Your task to perform on an android device: turn on priority inbox in the gmail app Image 0: 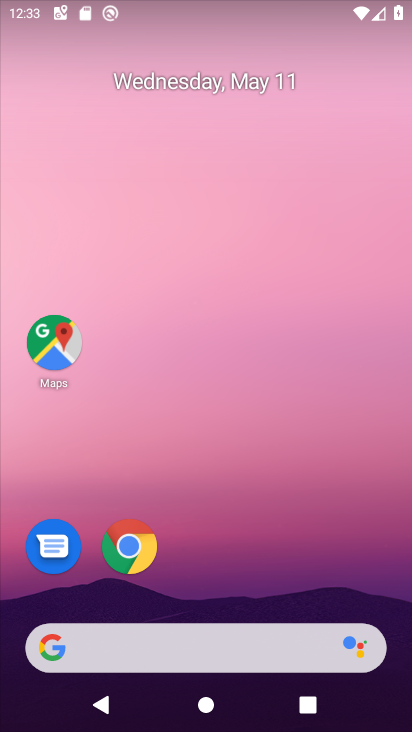
Step 0: drag from (238, 584) to (244, 237)
Your task to perform on an android device: turn on priority inbox in the gmail app Image 1: 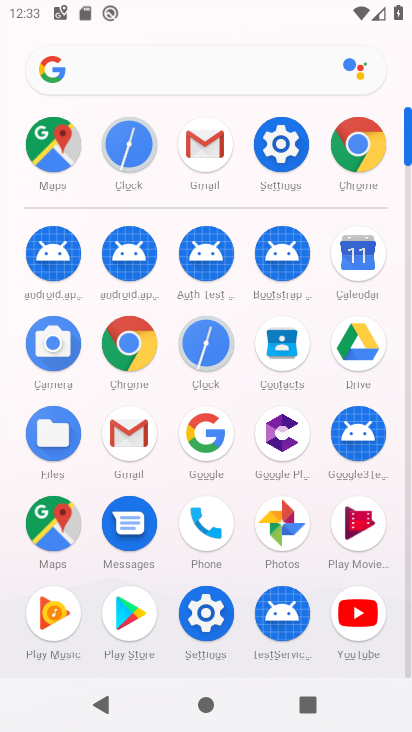
Step 1: click (200, 149)
Your task to perform on an android device: turn on priority inbox in the gmail app Image 2: 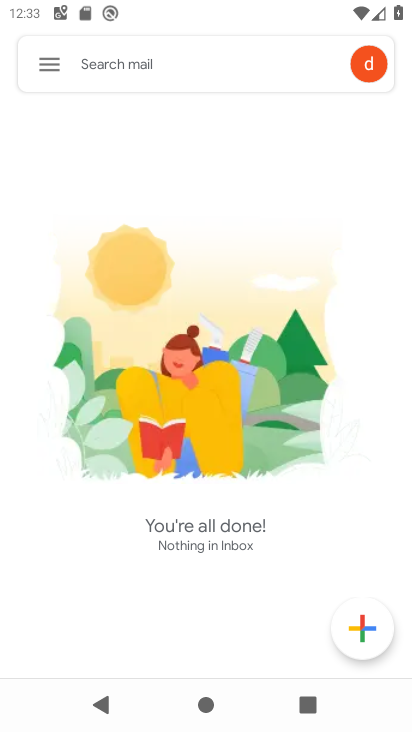
Step 2: click (51, 61)
Your task to perform on an android device: turn on priority inbox in the gmail app Image 3: 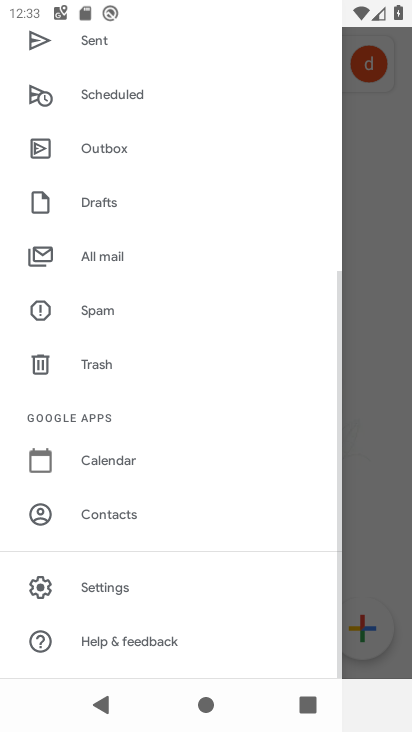
Step 3: click (126, 584)
Your task to perform on an android device: turn on priority inbox in the gmail app Image 4: 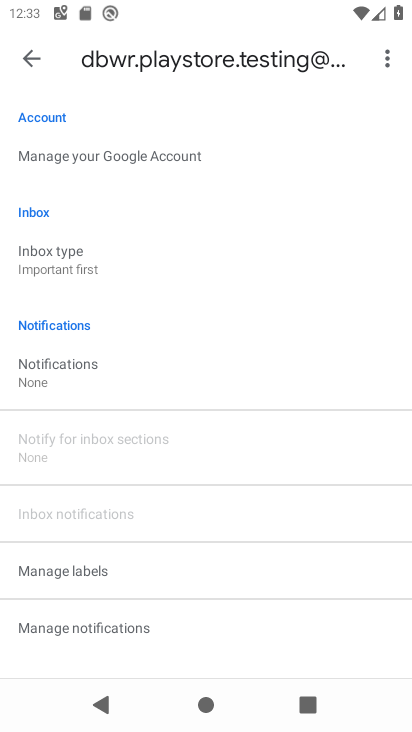
Step 4: click (50, 260)
Your task to perform on an android device: turn on priority inbox in the gmail app Image 5: 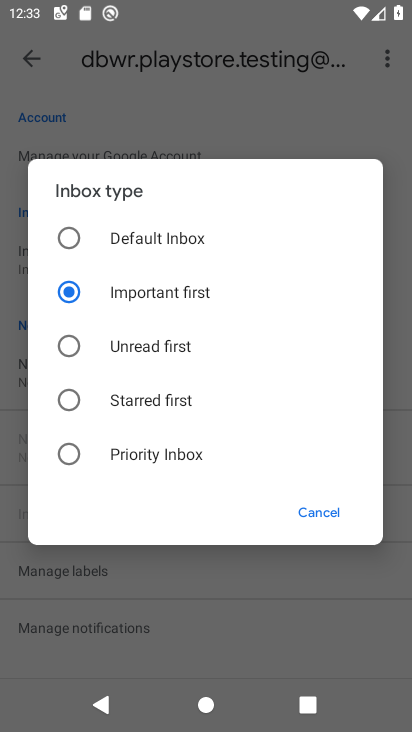
Step 5: click (130, 456)
Your task to perform on an android device: turn on priority inbox in the gmail app Image 6: 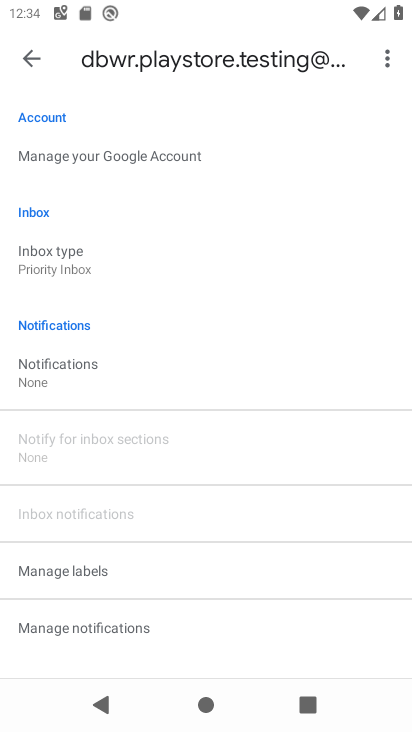
Step 6: task complete